Your task to perform on an android device: open app "Etsy: Buy & Sell Unique Items" Image 0: 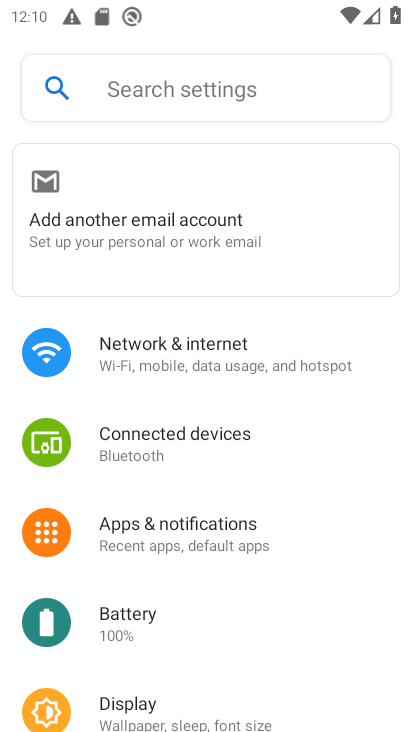
Step 0: press home button
Your task to perform on an android device: open app "Etsy: Buy & Sell Unique Items" Image 1: 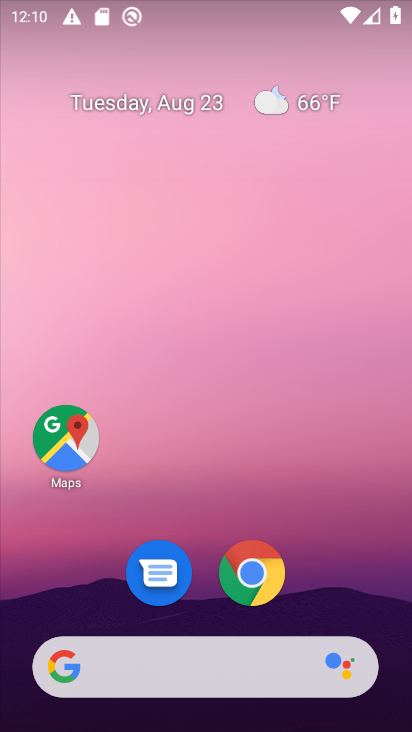
Step 1: drag from (158, 416) to (158, 140)
Your task to perform on an android device: open app "Etsy: Buy & Sell Unique Items" Image 2: 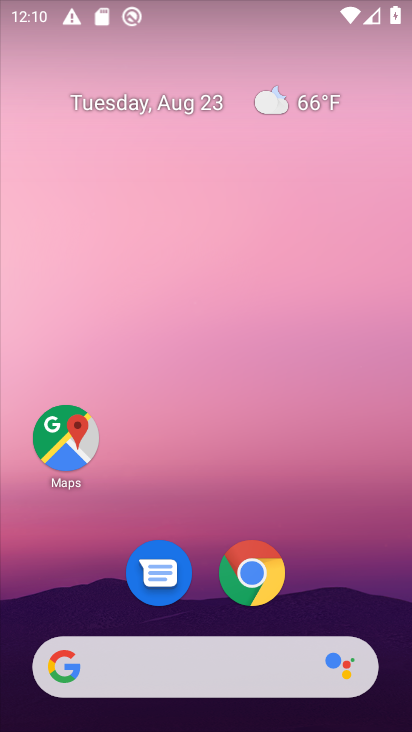
Step 2: drag from (221, 422) to (273, 67)
Your task to perform on an android device: open app "Etsy: Buy & Sell Unique Items" Image 3: 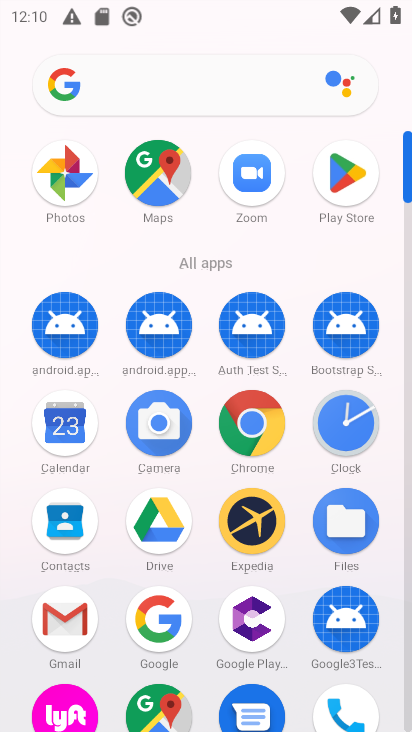
Step 3: click (356, 185)
Your task to perform on an android device: open app "Etsy: Buy & Sell Unique Items" Image 4: 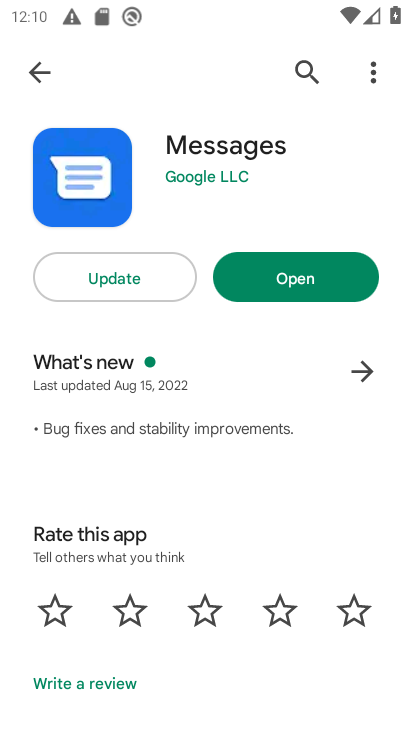
Step 4: click (307, 61)
Your task to perform on an android device: open app "Etsy: Buy & Sell Unique Items" Image 5: 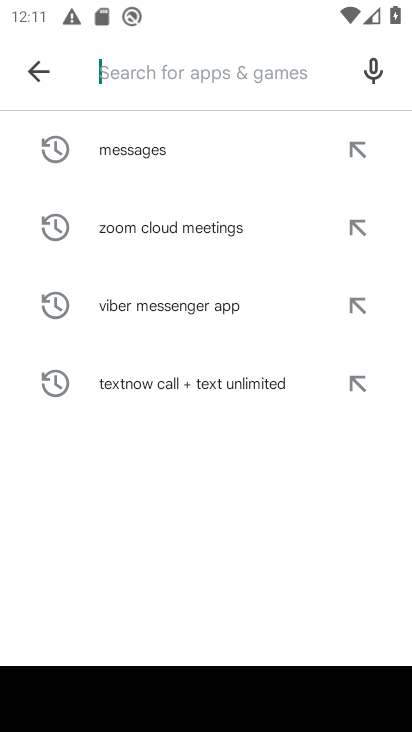
Step 5: type "Etsy: Buy & Sell Unique Items"
Your task to perform on an android device: open app "Etsy: Buy & Sell Unique Items" Image 6: 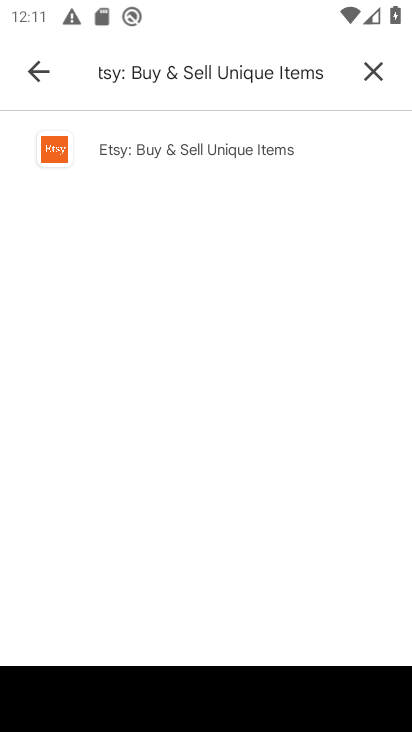
Step 6: click (200, 149)
Your task to perform on an android device: open app "Etsy: Buy & Sell Unique Items" Image 7: 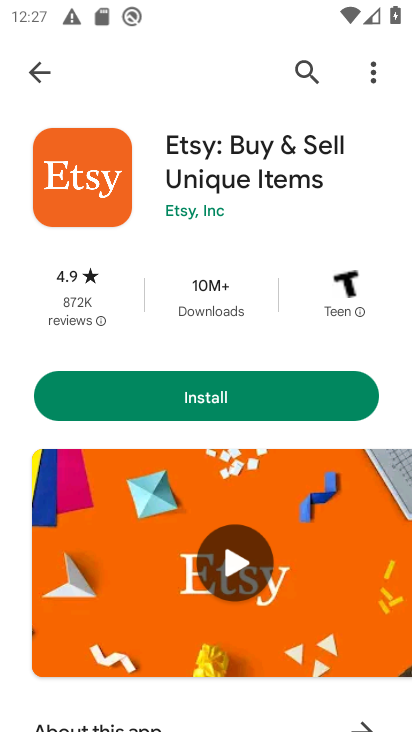
Step 7: task complete